Your task to perform on an android device: toggle javascript in the chrome app Image 0: 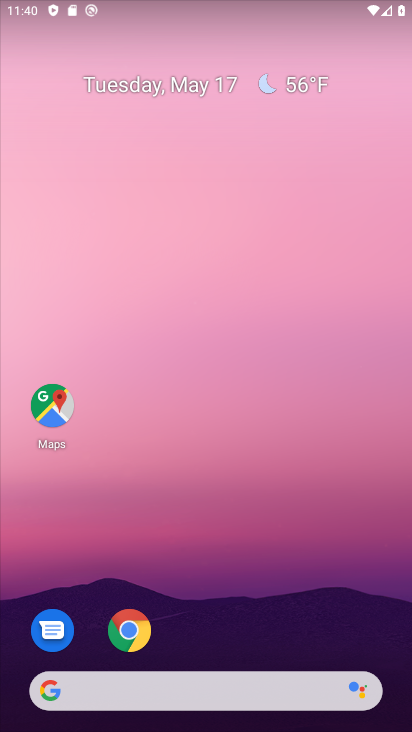
Step 0: click (135, 631)
Your task to perform on an android device: toggle javascript in the chrome app Image 1: 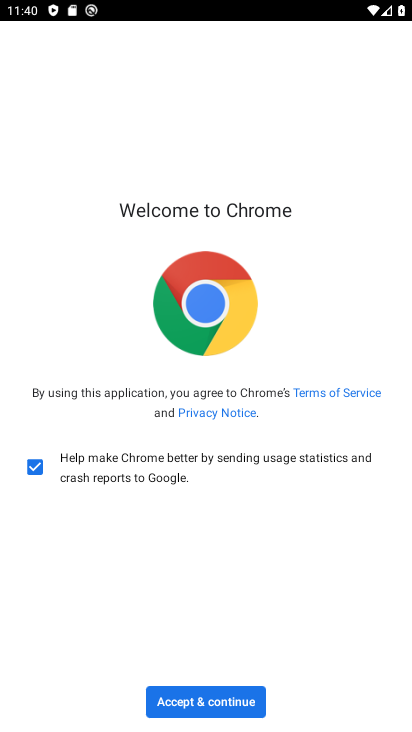
Step 1: click (164, 698)
Your task to perform on an android device: toggle javascript in the chrome app Image 2: 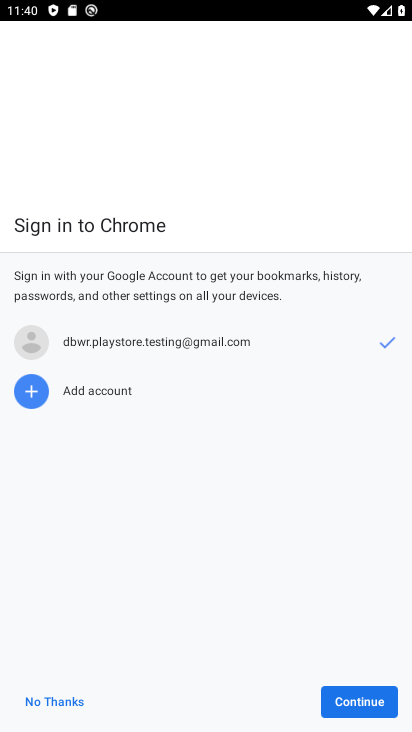
Step 2: click (357, 698)
Your task to perform on an android device: toggle javascript in the chrome app Image 3: 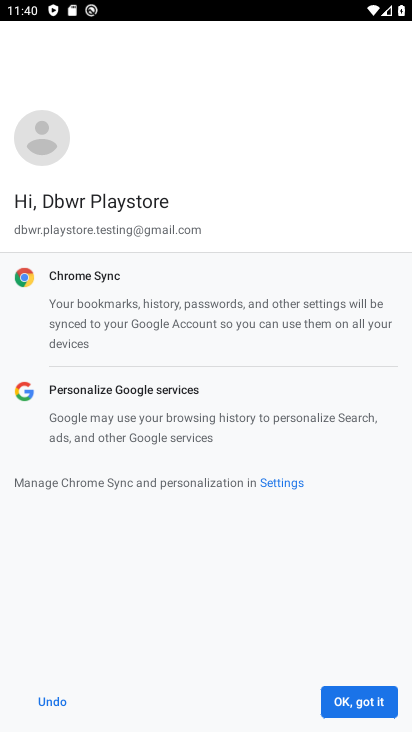
Step 3: click (357, 698)
Your task to perform on an android device: toggle javascript in the chrome app Image 4: 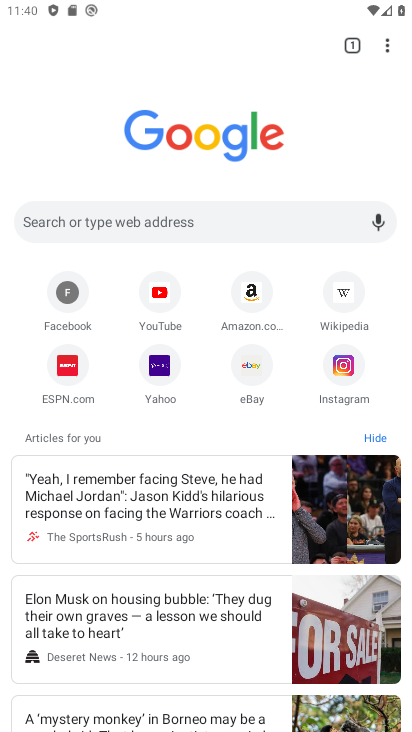
Step 4: click (389, 49)
Your task to perform on an android device: toggle javascript in the chrome app Image 5: 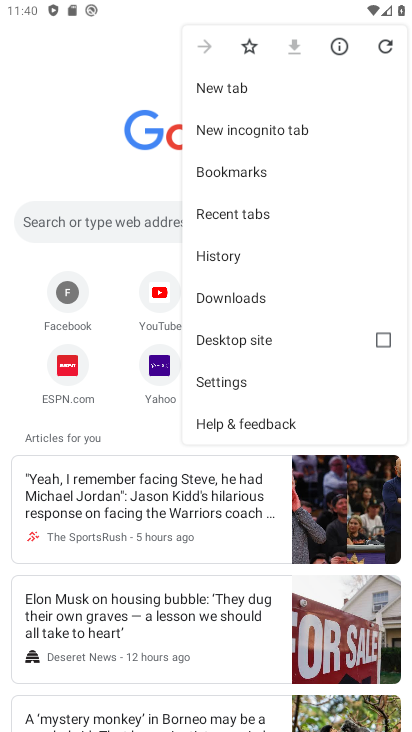
Step 5: click (232, 378)
Your task to perform on an android device: toggle javascript in the chrome app Image 6: 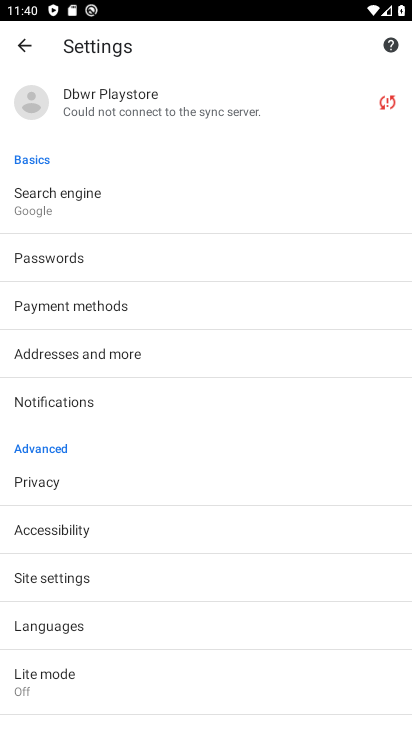
Step 6: click (67, 578)
Your task to perform on an android device: toggle javascript in the chrome app Image 7: 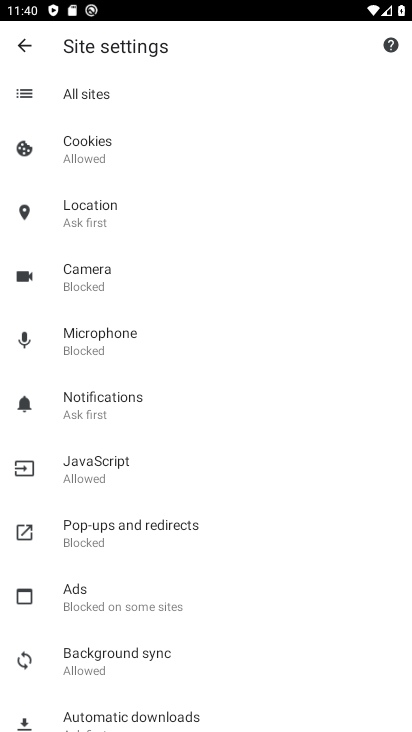
Step 7: click (94, 463)
Your task to perform on an android device: toggle javascript in the chrome app Image 8: 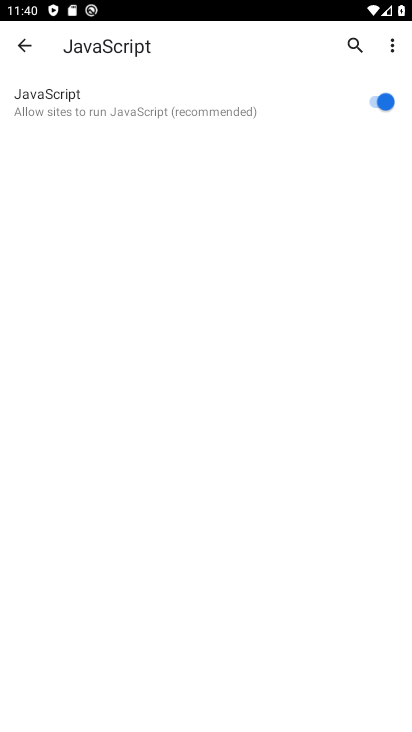
Step 8: click (373, 100)
Your task to perform on an android device: toggle javascript in the chrome app Image 9: 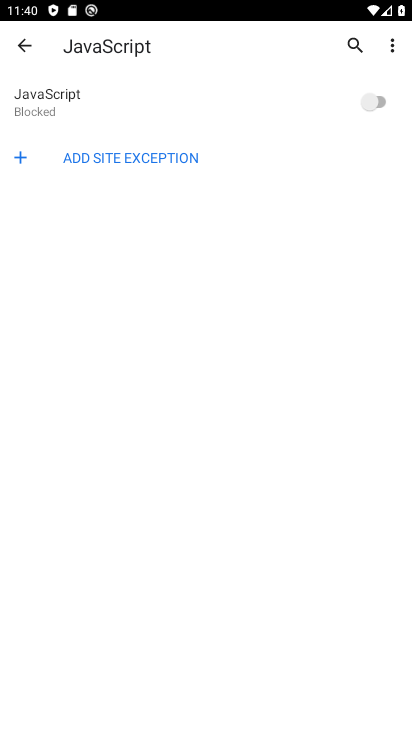
Step 9: task complete